Your task to perform on an android device: turn on the 12-hour format for clock Image 0: 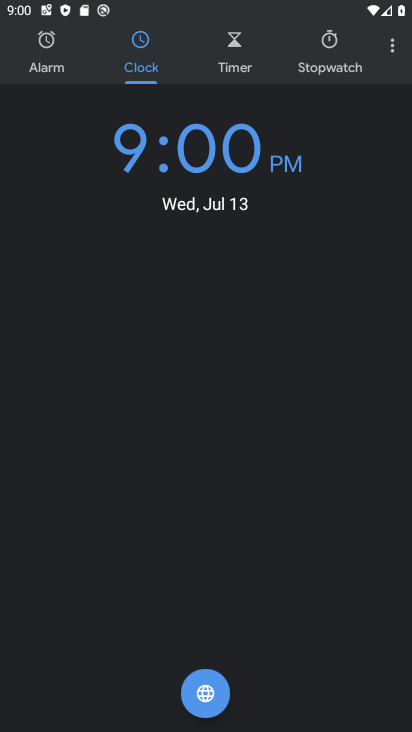
Step 0: click (393, 48)
Your task to perform on an android device: turn on the 12-hour format for clock Image 1: 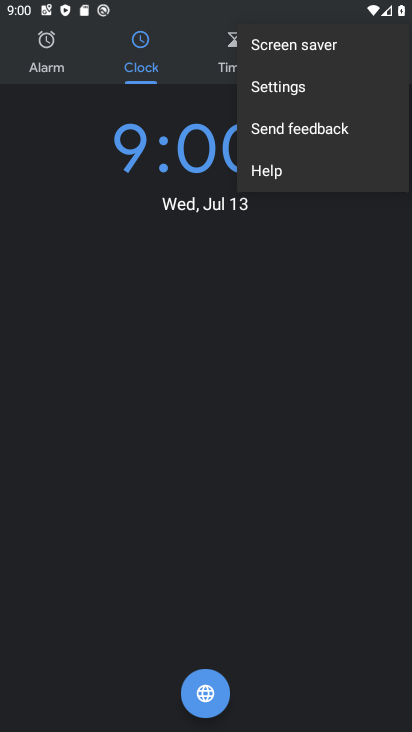
Step 1: click (287, 93)
Your task to perform on an android device: turn on the 12-hour format for clock Image 2: 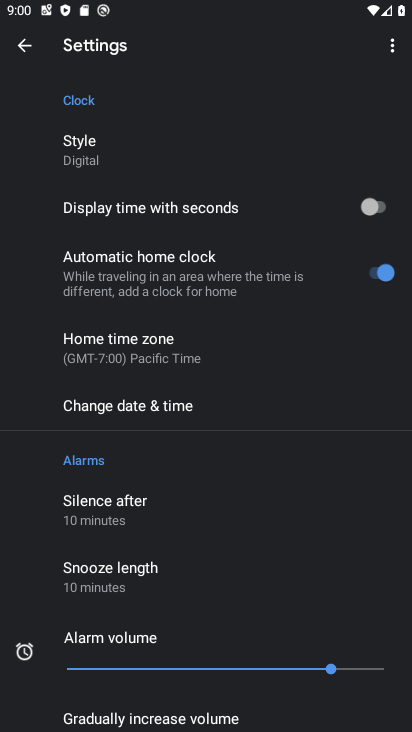
Step 2: click (164, 414)
Your task to perform on an android device: turn on the 12-hour format for clock Image 3: 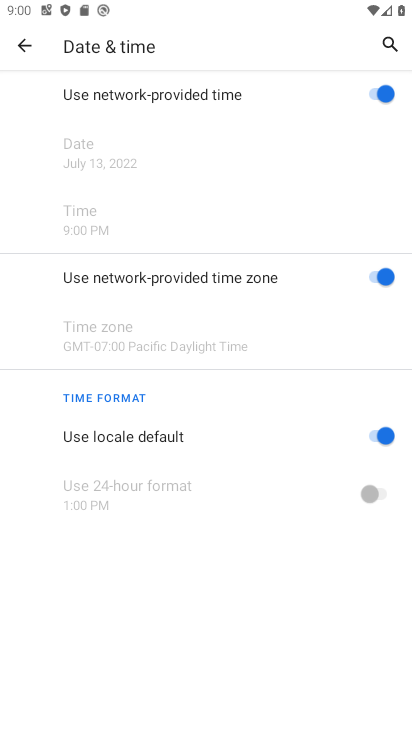
Step 3: task complete